Your task to perform on an android device: toggle data saver in the chrome app Image 0: 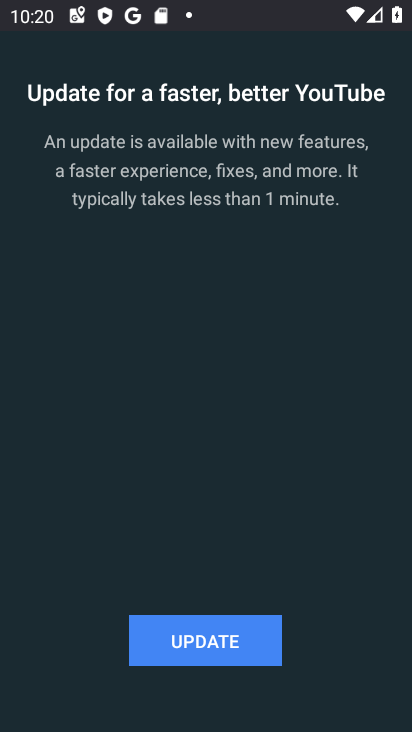
Step 0: press home button
Your task to perform on an android device: toggle data saver in the chrome app Image 1: 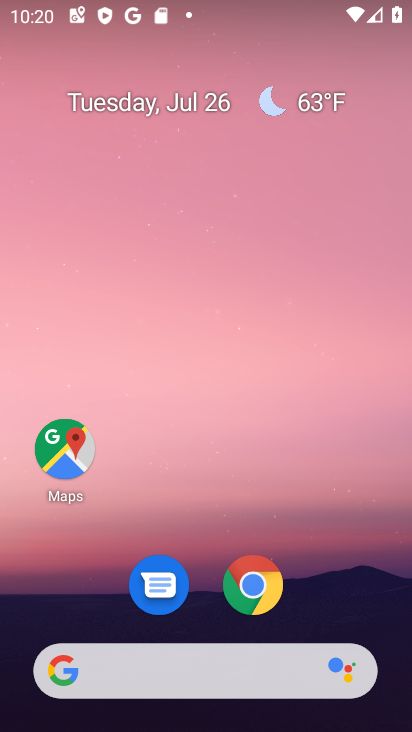
Step 1: drag from (229, 491) to (312, 33)
Your task to perform on an android device: toggle data saver in the chrome app Image 2: 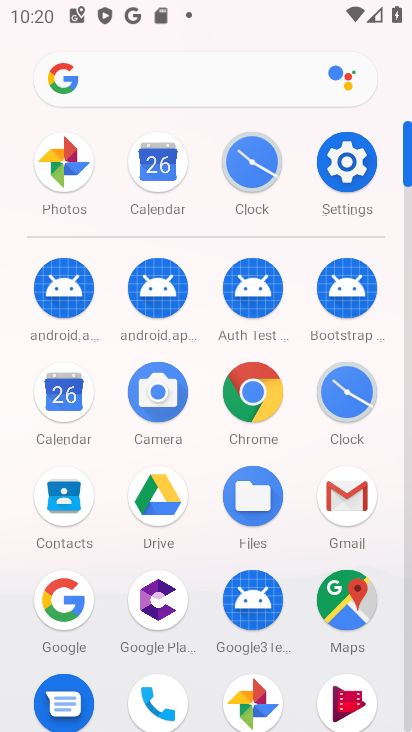
Step 2: click (244, 390)
Your task to perform on an android device: toggle data saver in the chrome app Image 3: 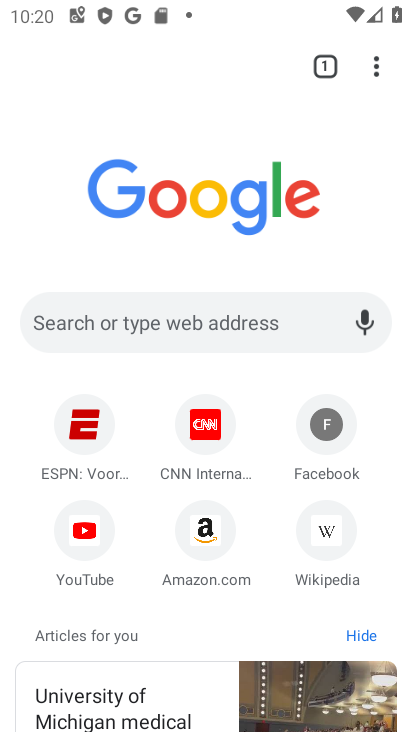
Step 3: click (378, 65)
Your task to perform on an android device: toggle data saver in the chrome app Image 4: 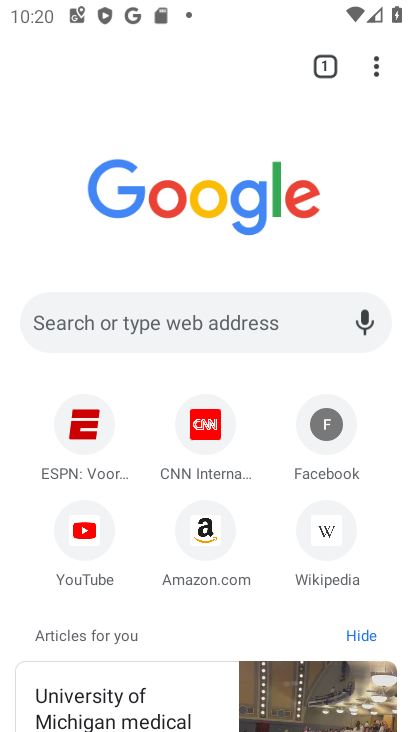
Step 4: click (378, 65)
Your task to perform on an android device: toggle data saver in the chrome app Image 5: 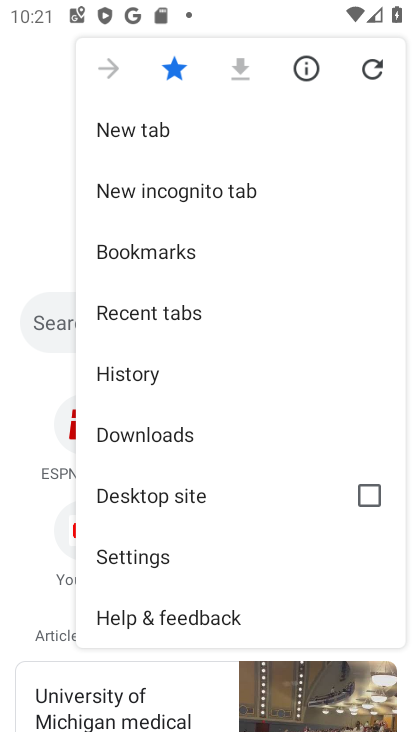
Step 5: click (142, 555)
Your task to perform on an android device: toggle data saver in the chrome app Image 6: 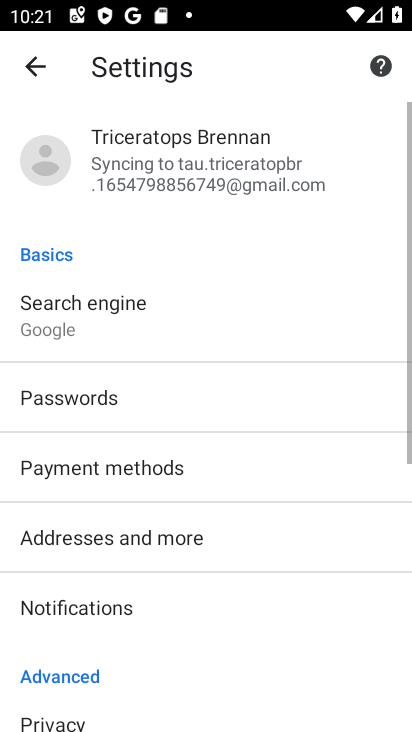
Step 6: drag from (215, 612) to (288, 48)
Your task to perform on an android device: toggle data saver in the chrome app Image 7: 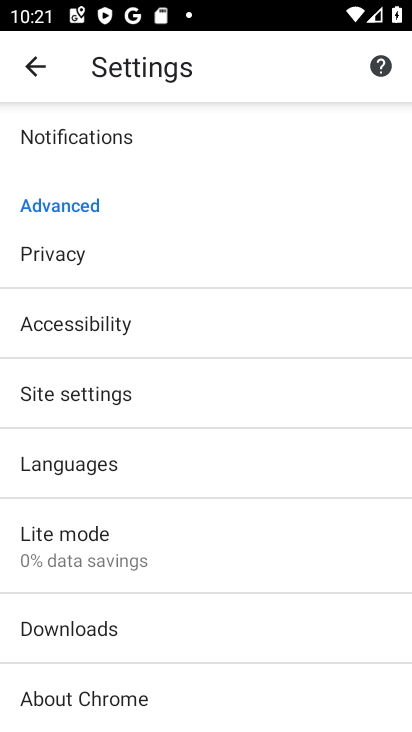
Step 7: click (156, 563)
Your task to perform on an android device: toggle data saver in the chrome app Image 8: 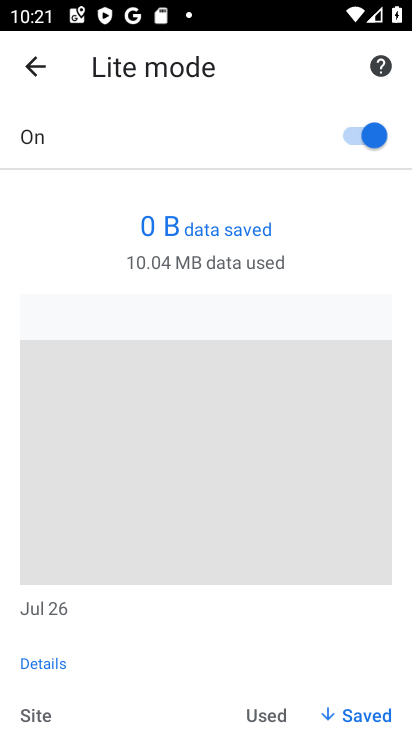
Step 8: click (359, 129)
Your task to perform on an android device: toggle data saver in the chrome app Image 9: 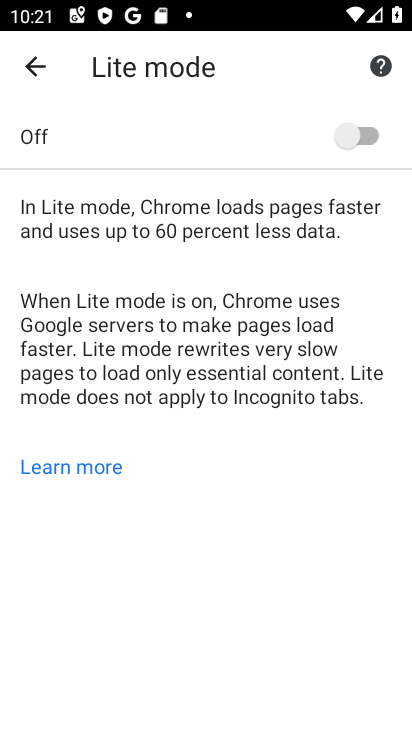
Step 9: task complete